Your task to perform on an android device: turn off improve location accuracy Image 0: 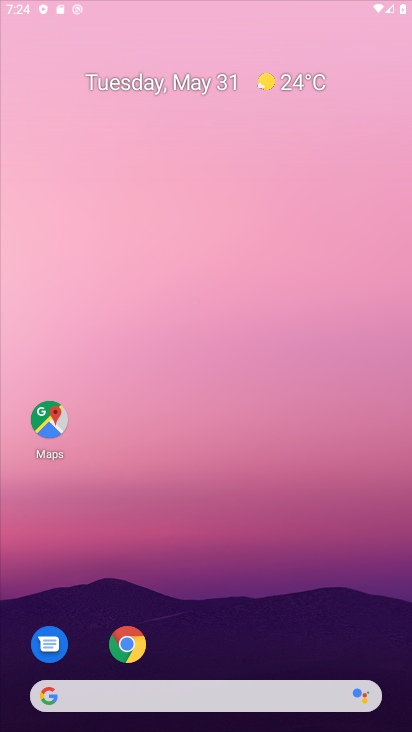
Step 0: click (290, 142)
Your task to perform on an android device: turn off improve location accuracy Image 1: 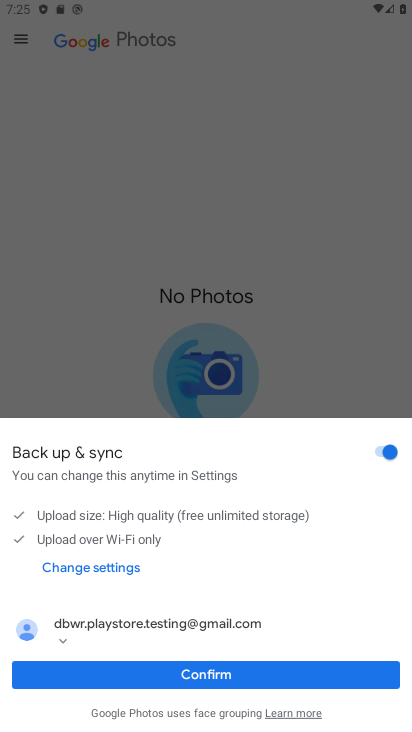
Step 1: press home button
Your task to perform on an android device: turn off improve location accuracy Image 2: 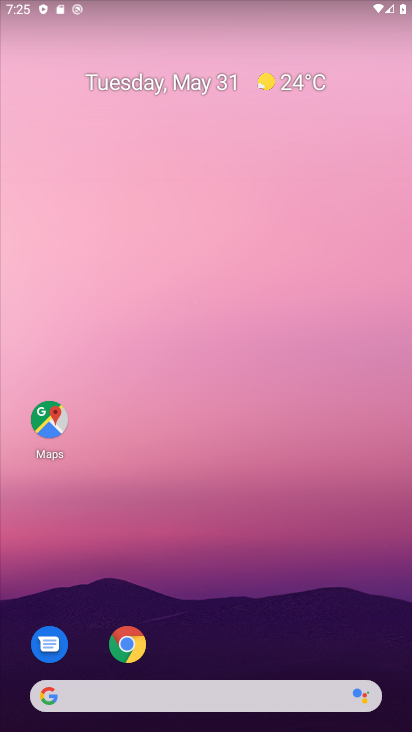
Step 2: drag from (315, 624) to (318, 197)
Your task to perform on an android device: turn off improve location accuracy Image 3: 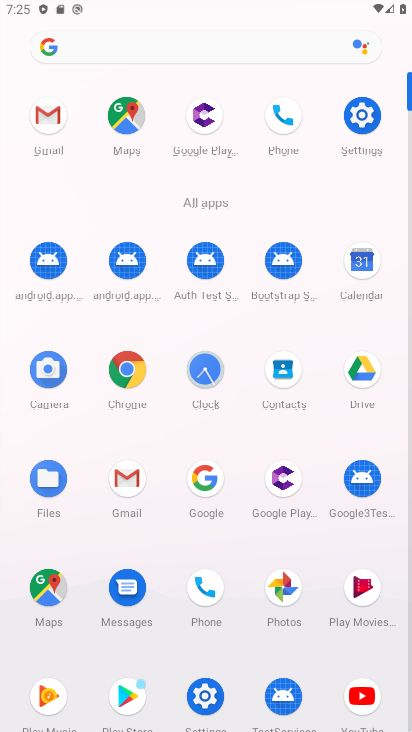
Step 3: click (360, 114)
Your task to perform on an android device: turn off improve location accuracy Image 4: 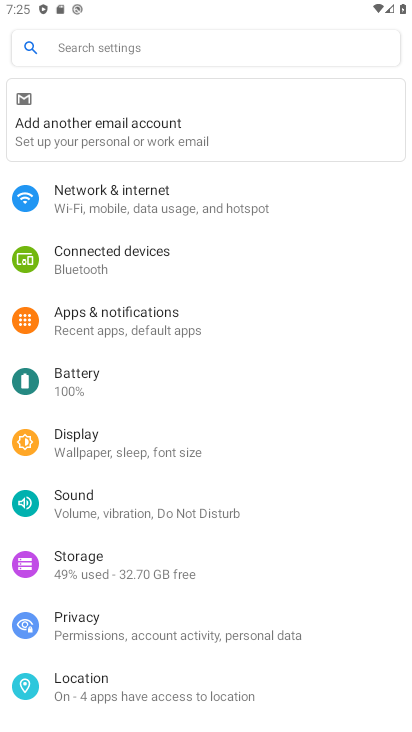
Step 4: click (187, 699)
Your task to perform on an android device: turn off improve location accuracy Image 5: 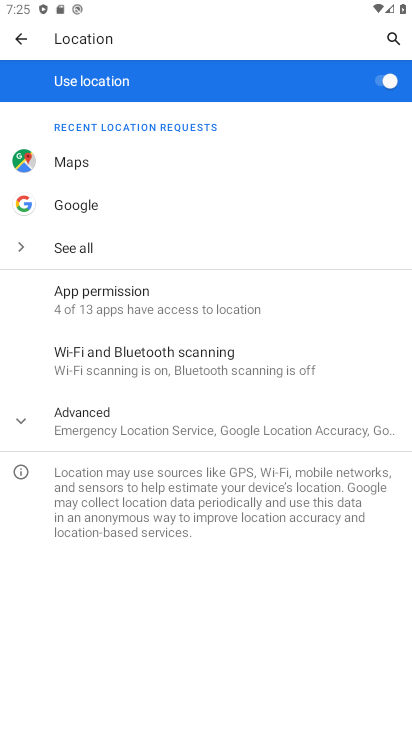
Step 5: click (218, 435)
Your task to perform on an android device: turn off improve location accuracy Image 6: 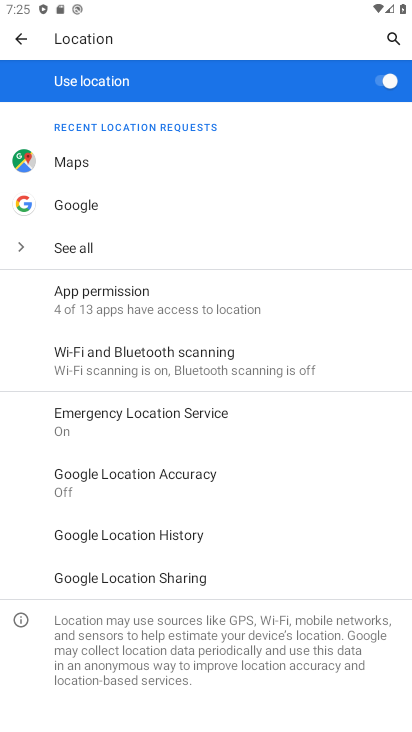
Step 6: click (228, 482)
Your task to perform on an android device: turn off improve location accuracy Image 7: 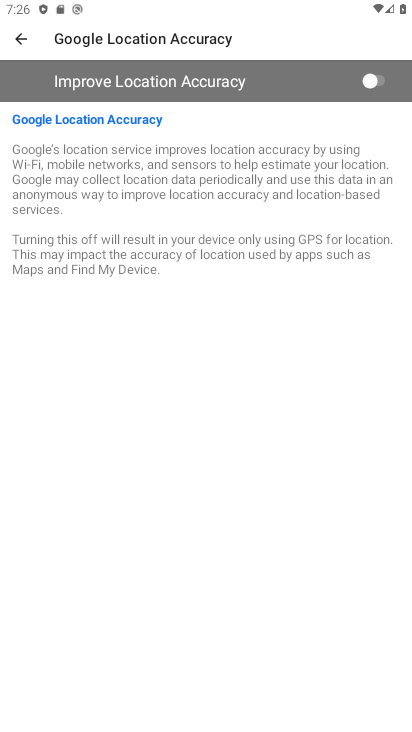
Step 7: task complete